Your task to perform on an android device: toggle pop-ups in chrome Image 0: 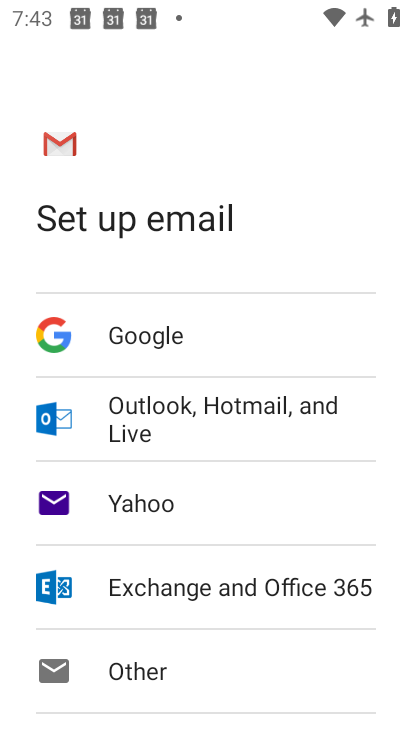
Step 0: press home button
Your task to perform on an android device: toggle pop-ups in chrome Image 1: 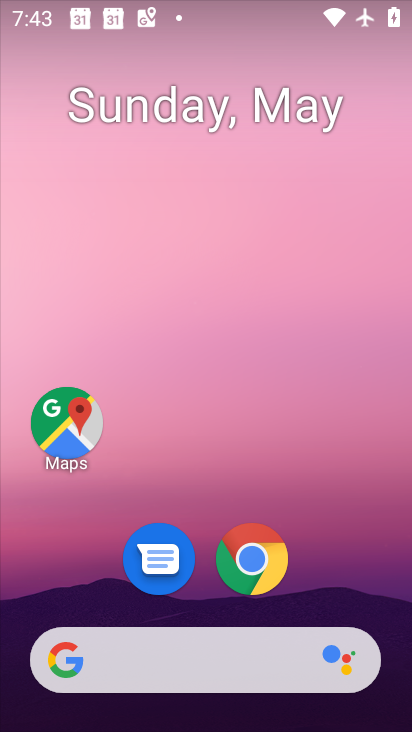
Step 1: click (250, 573)
Your task to perform on an android device: toggle pop-ups in chrome Image 2: 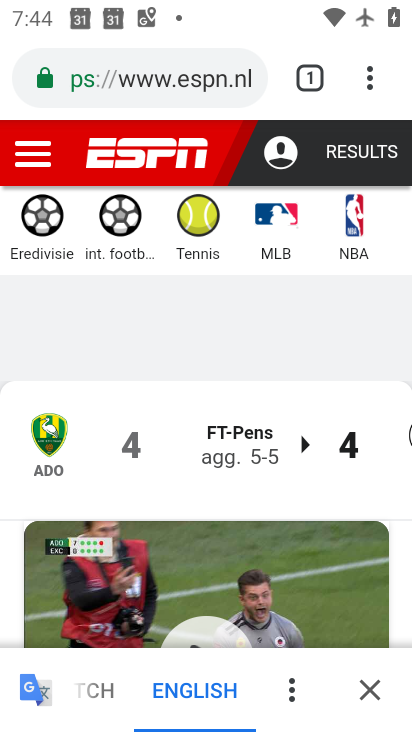
Step 2: drag from (372, 75) to (141, 621)
Your task to perform on an android device: toggle pop-ups in chrome Image 3: 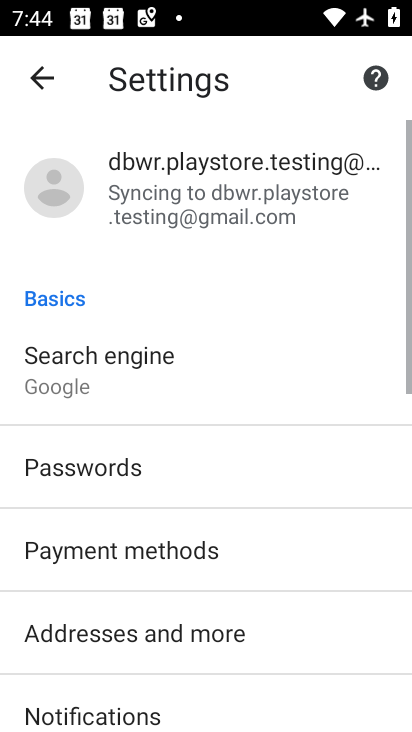
Step 3: drag from (257, 595) to (402, 23)
Your task to perform on an android device: toggle pop-ups in chrome Image 4: 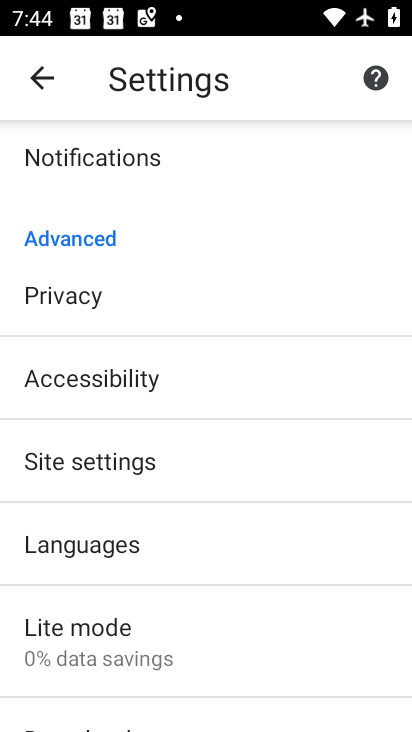
Step 4: click (114, 452)
Your task to perform on an android device: toggle pop-ups in chrome Image 5: 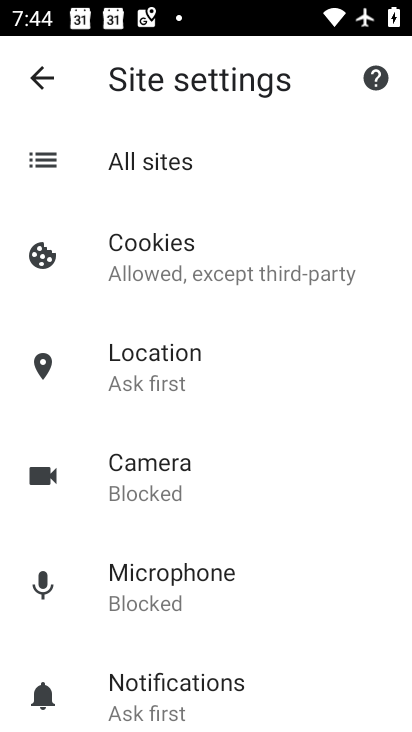
Step 5: drag from (191, 636) to (384, 109)
Your task to perform on an android device: toggle pop-ups in chrome Image 6: 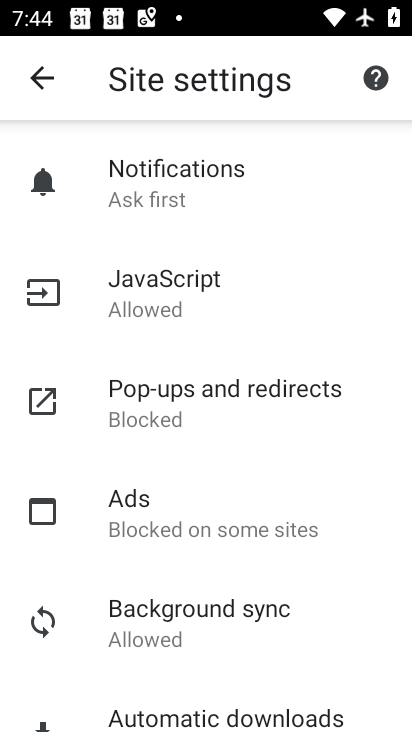
Step 6: click (224, 389)
Your task to perform on an android device: toggle pop-ups in chrome Image 7: 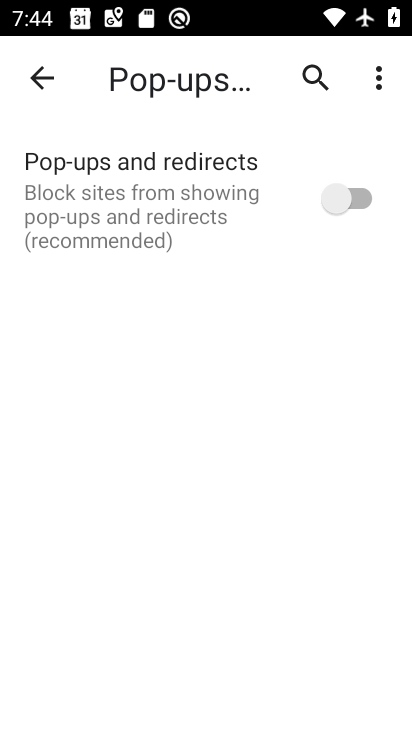
Step 7: click (365, 191)
Your task to perform on an android device: toggle pop-ups in chrome Image 8: 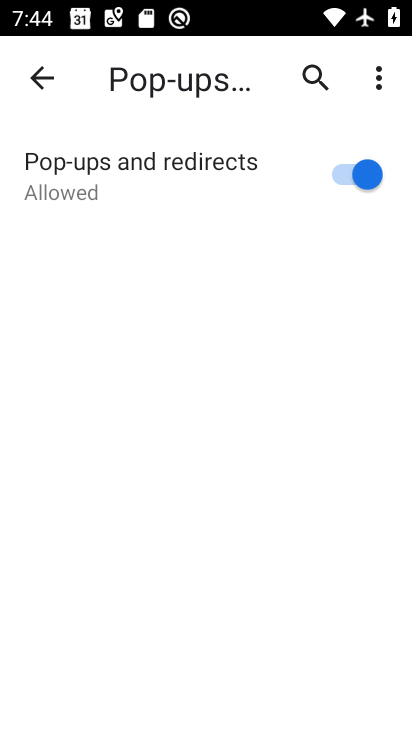
Step 8: task complete